Your task to perform on an android device: turn on showing notifications on the lock screen Image 0: 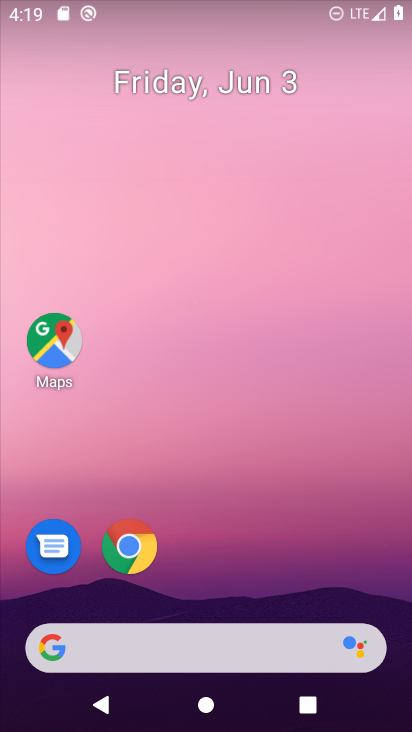
Step 0: drag from (259, 489) to (312, 0)
Your task to perform on an android device: turn on showing notifications on the lock screen Image 1: 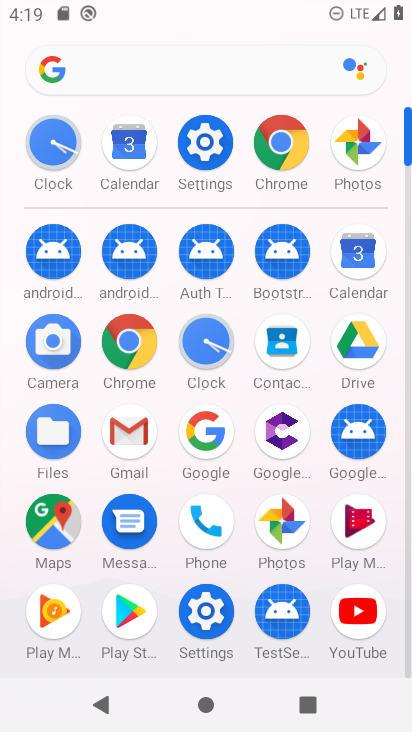
Step 1: click (197, 150)
Your task to perform on an android device: turn on showing notifications on the lock screen Image 2: 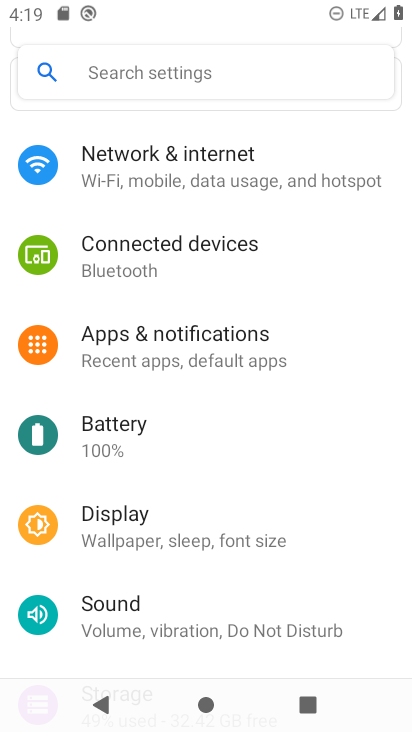
Step 2: click (232, 316)
Your task to perform on an android device: turn on showing notifications on the lock screen Image 3: 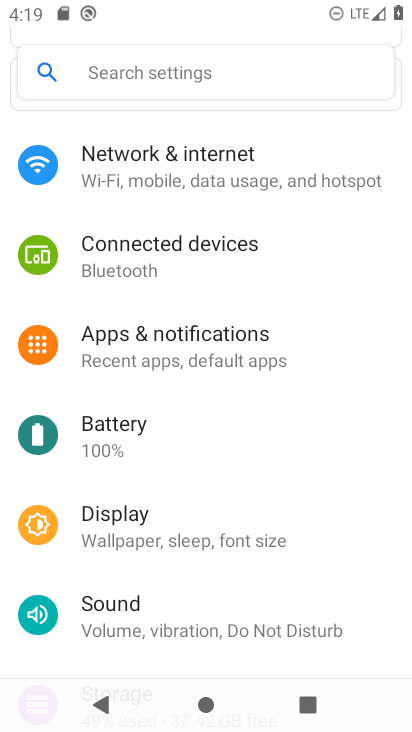
Step 3: click (234, 332)
Your task to perform on an android device: turn on showing notifications on the lock screen Image 4: 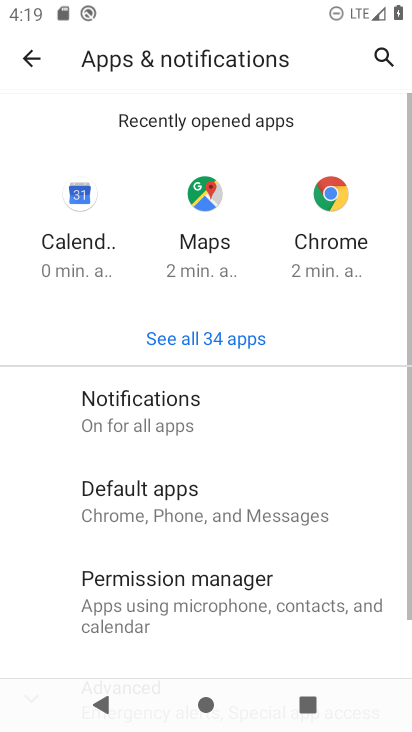
Step 4: click (239, 392)
Your task to perform on an android device: turn on showing notifications on the lock screen Image 5: 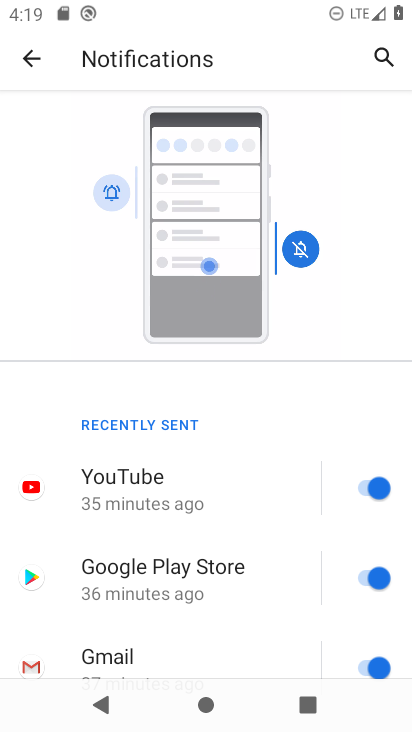
Step 5: drag from (234, 591) to (242, 43)
Your task to perform on an android device: turn on showing notifications on the lock screen Image 6: 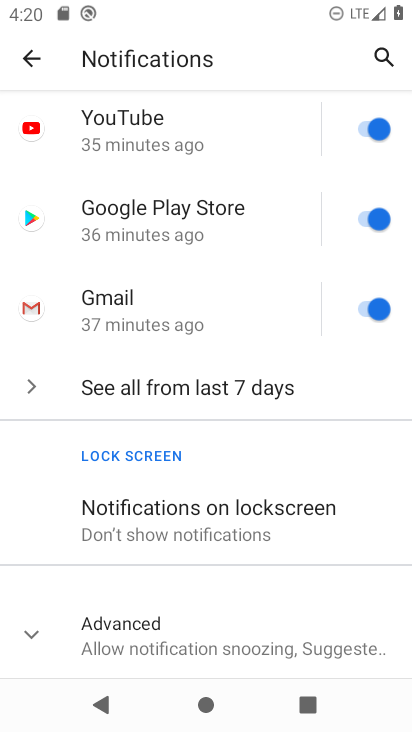
Step 6: click (237, 520)
Your task to perform on an android device: turn on showing notifications on the lock screen Image 7: 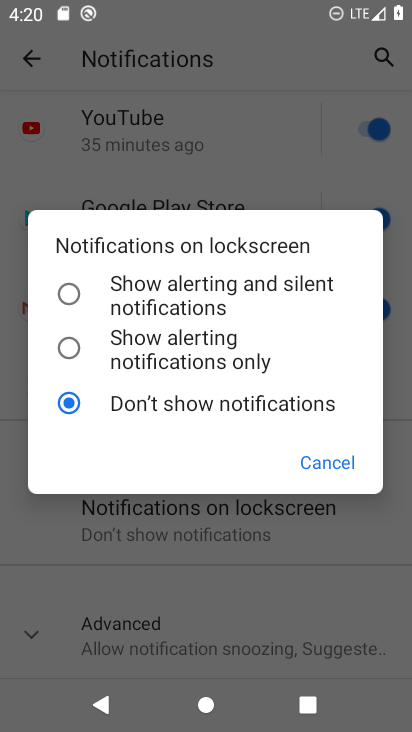
Step 7: click (78, 291)
Your task to perform on an android device: turn on showing notifications on the lock screen Image 8: 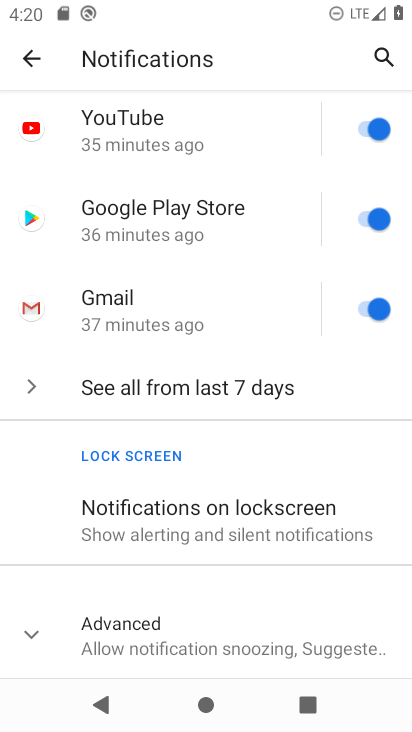
Step 8: task complete